Your task to perform on an android device: check google app version Image 0: 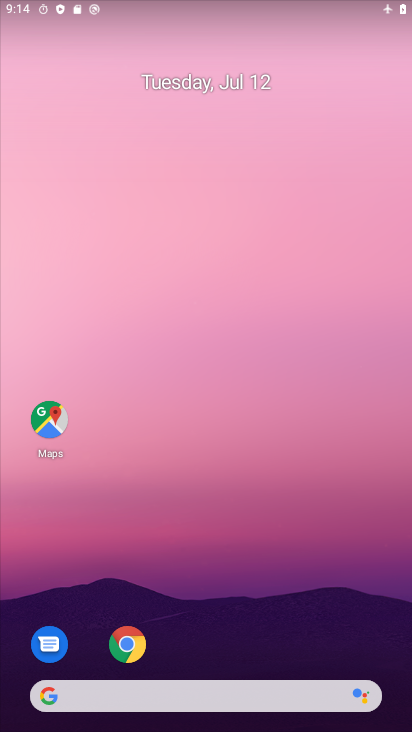
Step 0: drag from (190, 647) to (146, 274)
Your task to perform on an android device: check google app version Image 1: 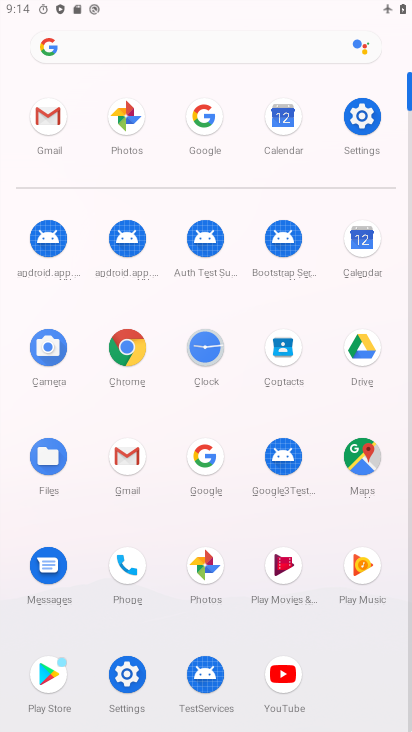
Step 1: click (207, 128)
Your task to perform on an android device: check google app version Image 2: 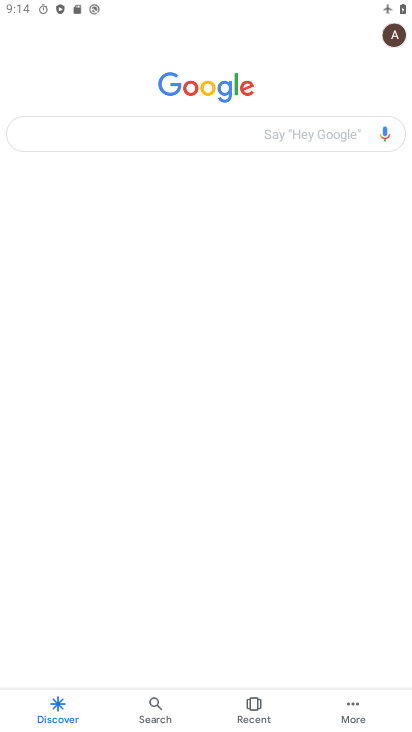
Step 2: click (363, 692)
Your task to perform on an android device: check google app version Image 3: 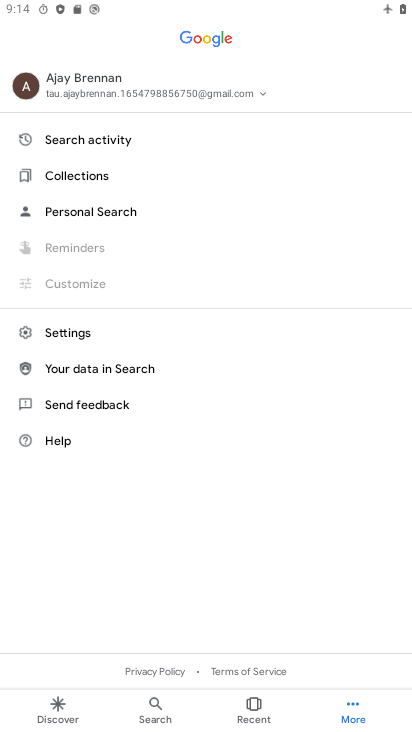
Step 3: click (74, 340)
Your task to perform on an android device: check google app version Image 4: 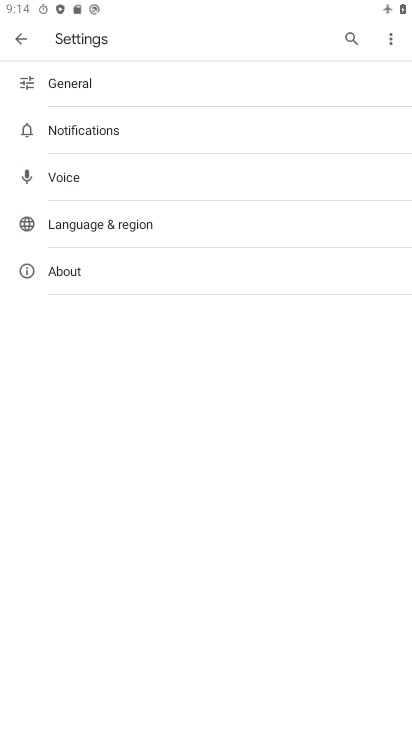
Step 4: click (109, 282)
Your task to perform on an android device: check google app version Image 5: 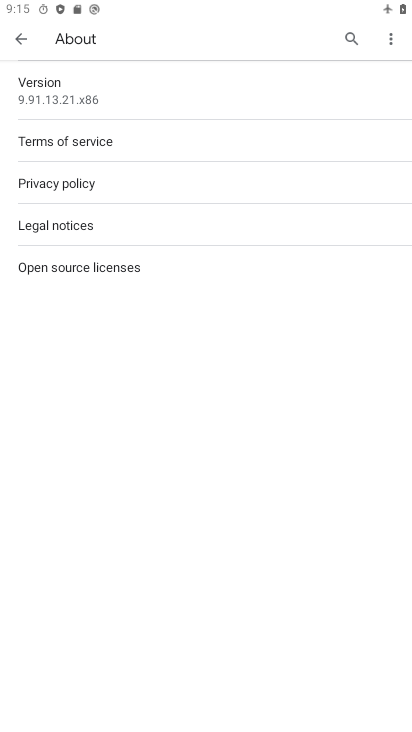
Step 5: click (97, 99)
Your task to perform on an android device: check google app version Image 6: 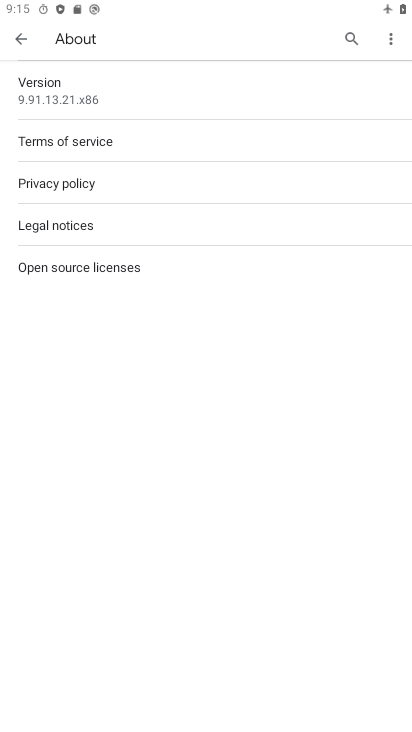
Step 6: task complete